Your task to perform on an android device: toggle notification dots Image 0: 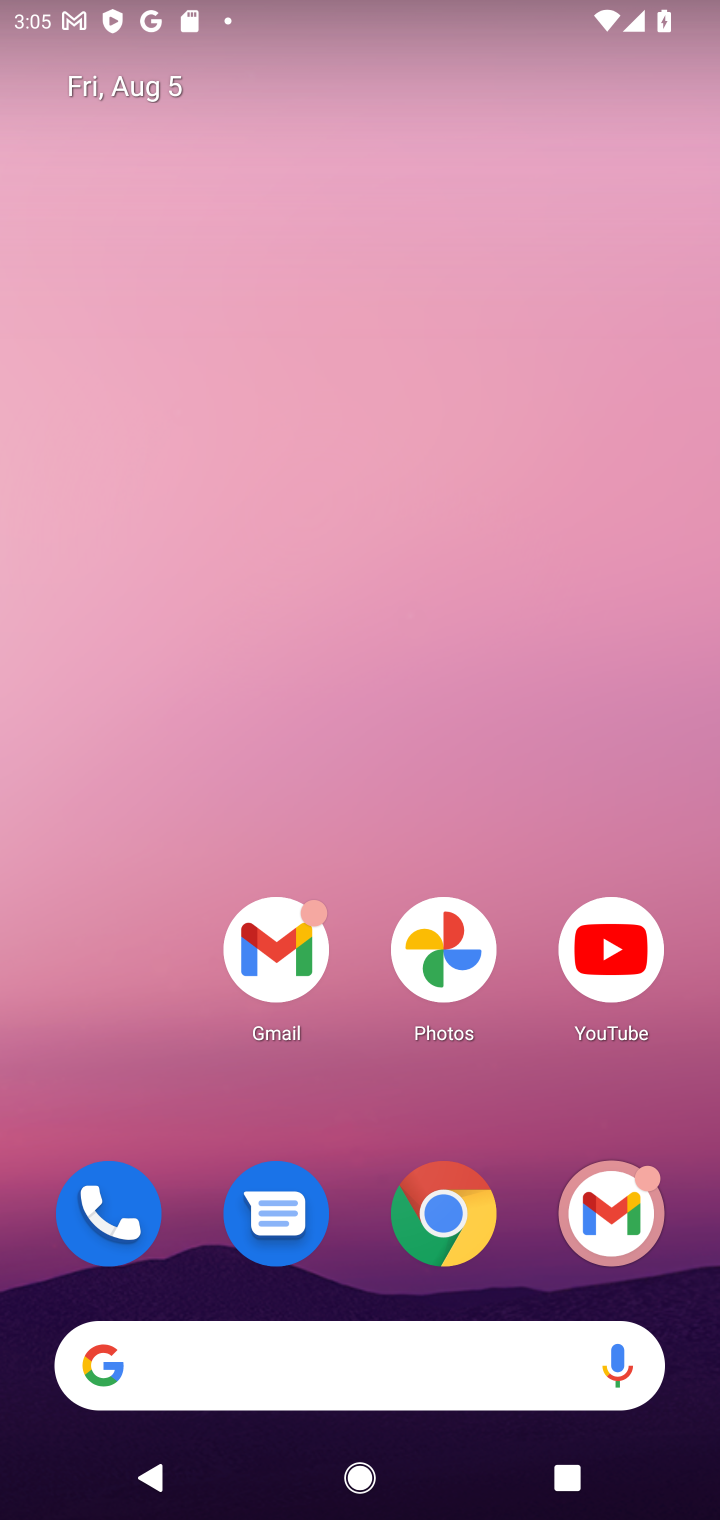
Step 0: drag from (356, 1286) to (547, 271)
Your task to perform on an android device: toggle notification dots Image 1: 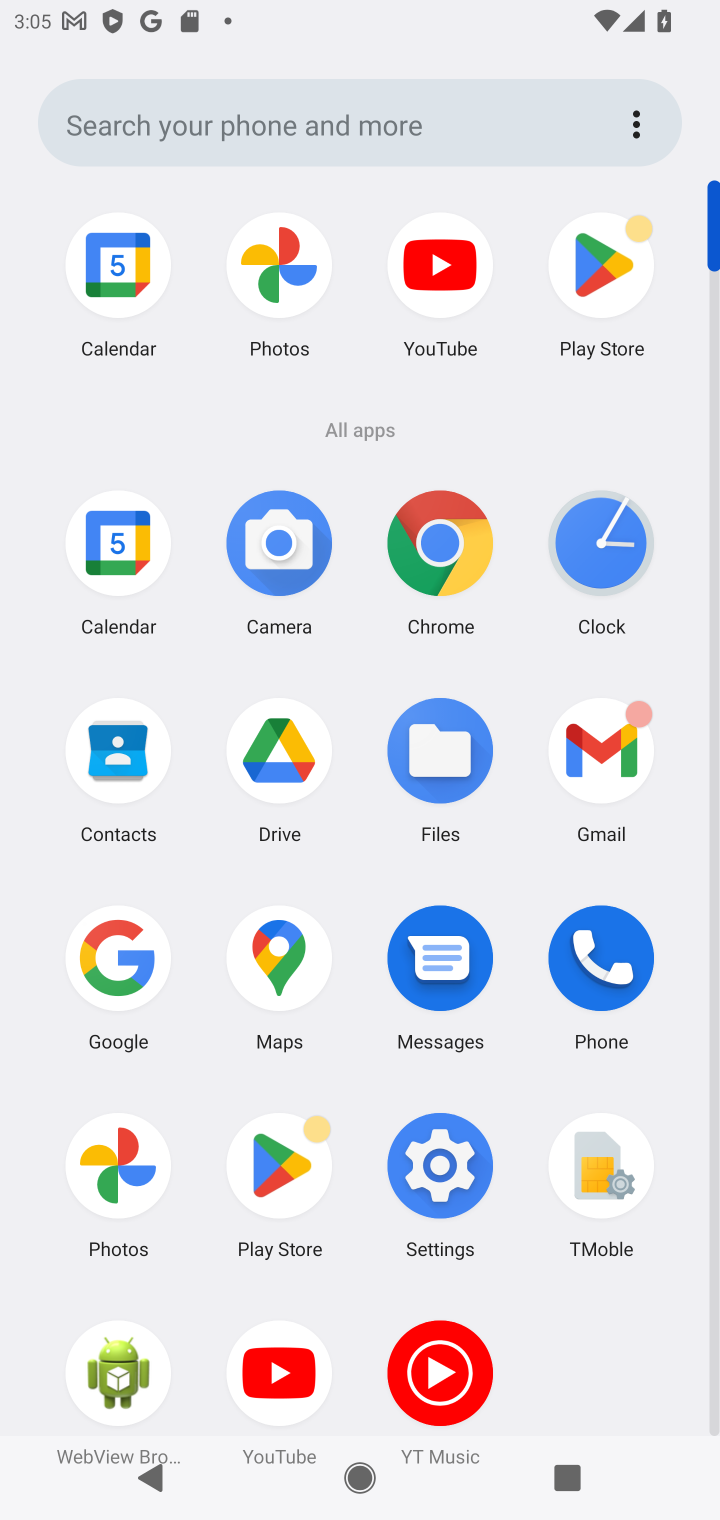
Step 1: click (420, 1150)
Your task to perform on an android device: toggle notification dots Image 2: 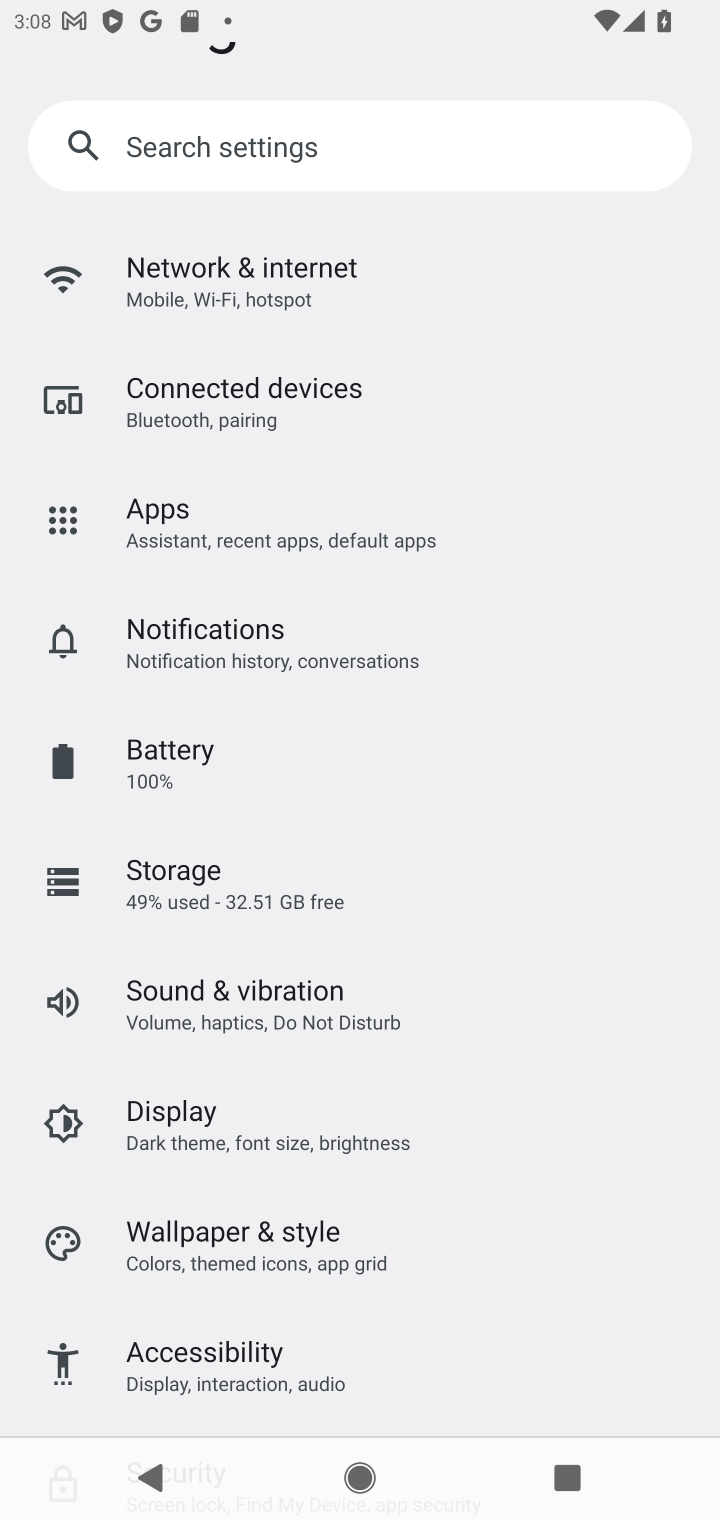
Step 2: task complete